Your task to perform on an android device: Go to Android settings Image 0: 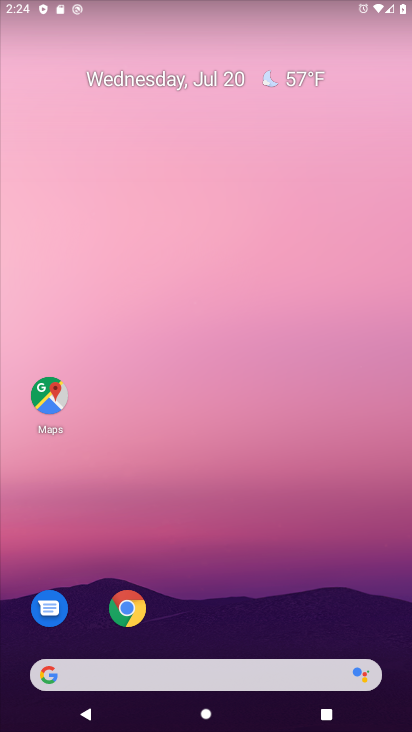
Step 0: drag from (194, 613) to (210, 53)
Your task to perform on an android device: Go to Android settings Image 1: 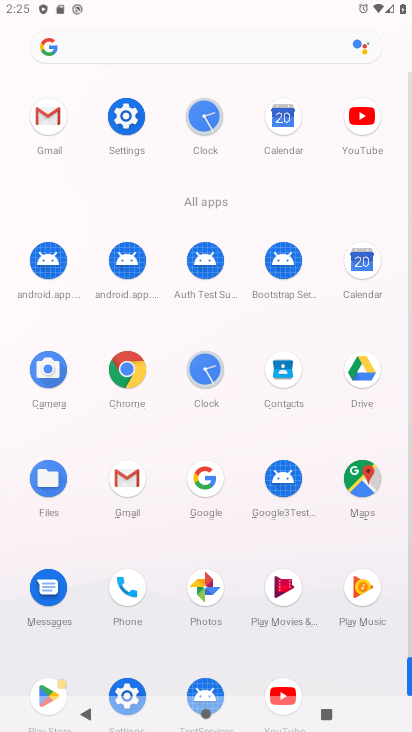
Step 1: click (117, 111)
Your task to perform on an android device: Go to Android settings Image 2: 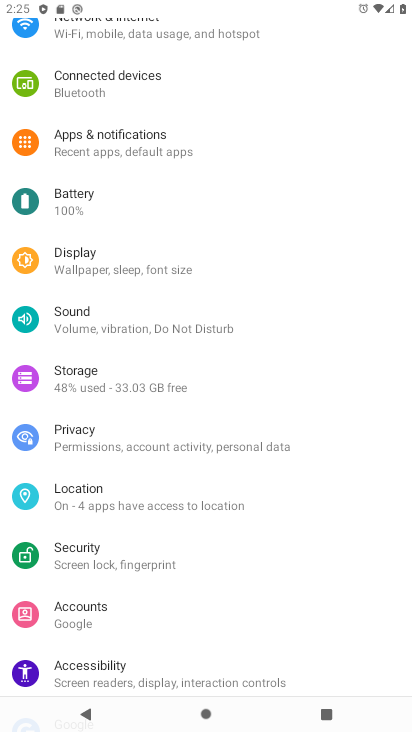
Step 2: drag from (177, 621) to (132, 56)
Your task to perform on an android device: Go to Android settings Image 3: 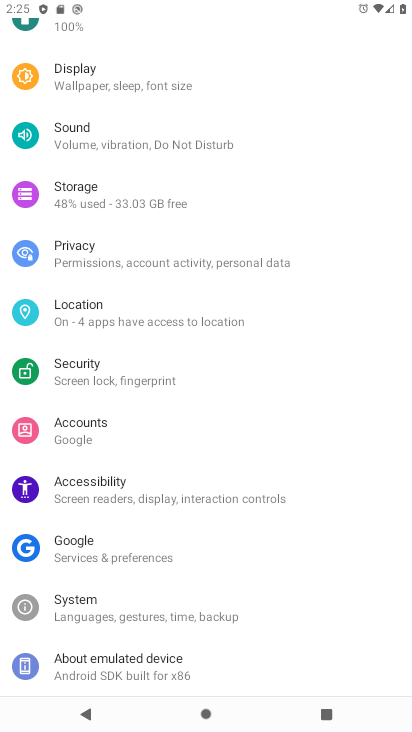
Step 3: click (142, 657)
Your task to perform on an android device: Go to Android settings Image 4: 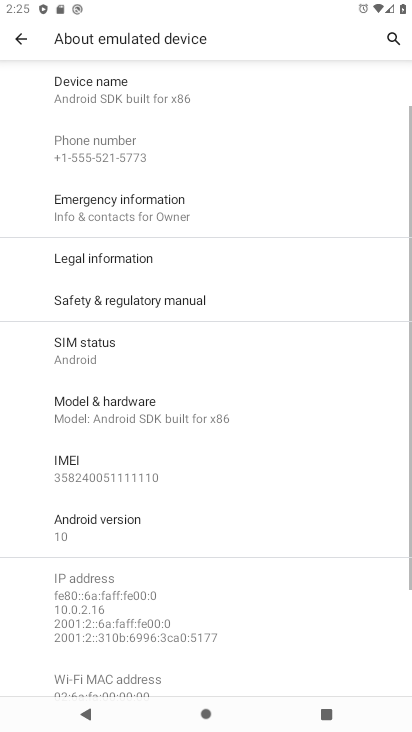
Step 4: click (102, 530)
Your task to perform on an android device: Go to Android settings Image 5: 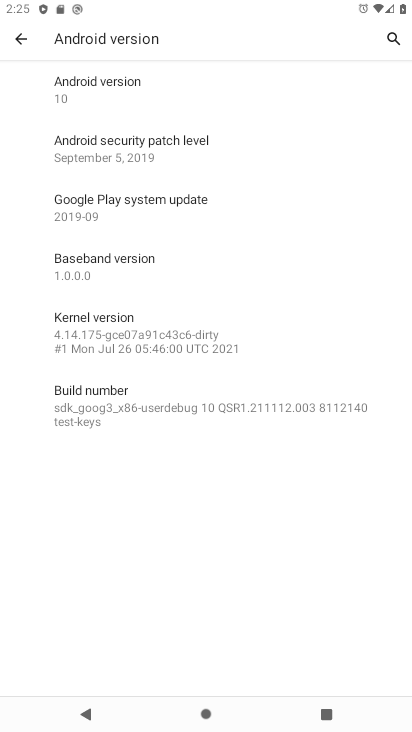
Step 5: task complete